Your task to perform on an android device: toggle sleep mode Image 0: 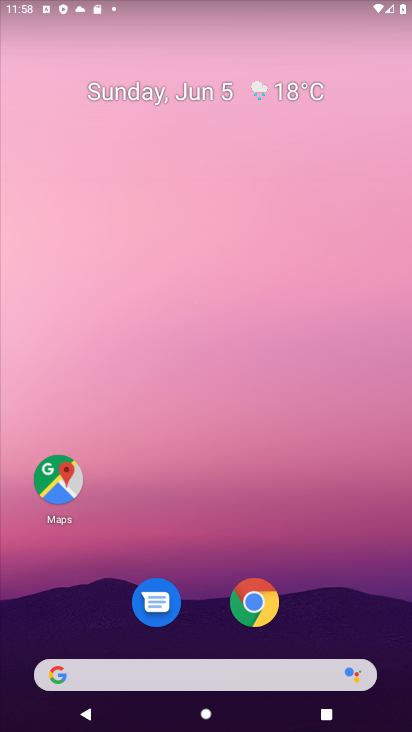
Step 0: drag from (345, 616) to (226, 8)
Your task to perform on an android device: toggle sleep mode Image 1: 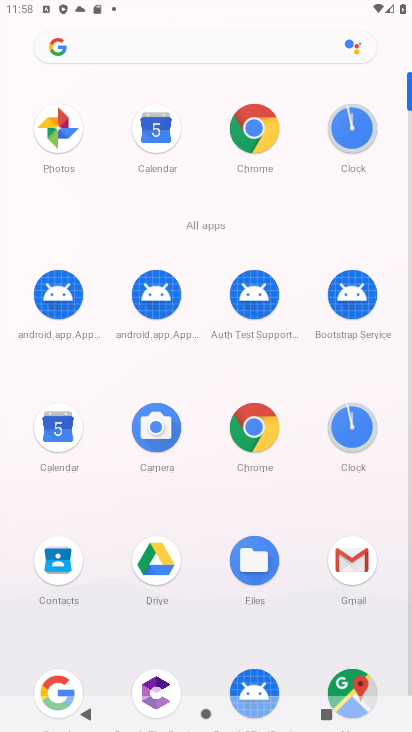
Step 1: task complete